Your task to perform on an android device: What's on my calendar today? Image 0: 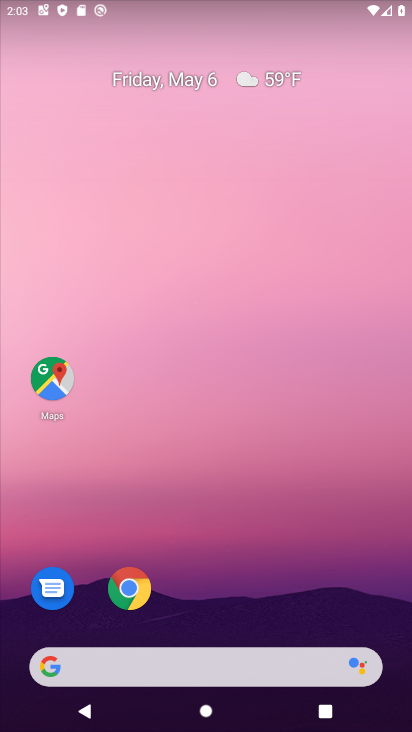
Step 0: click (173, 85)
Your task to perform on an android device: What's on my calendar today? Image 1: 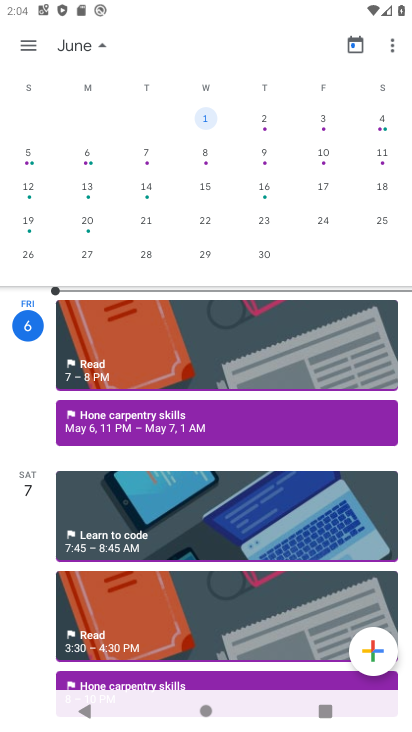
Step 1: task complete